Your task to perform on an android device: see sites visited before in the chrome app Image 0: 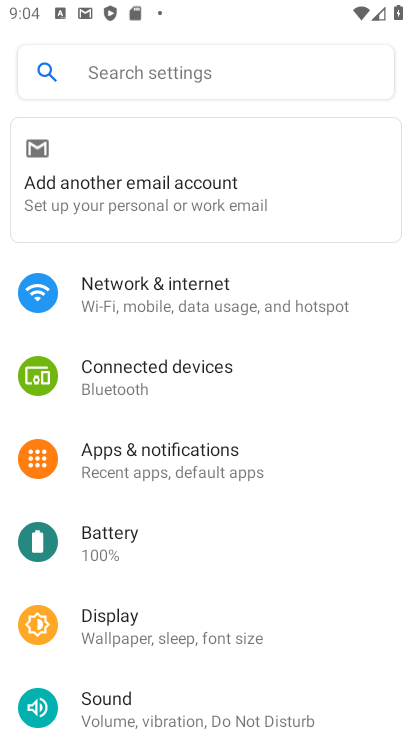
Step 0: press home button
Your task to perform on an android device: see sites visited before in the chrome app Image 1: 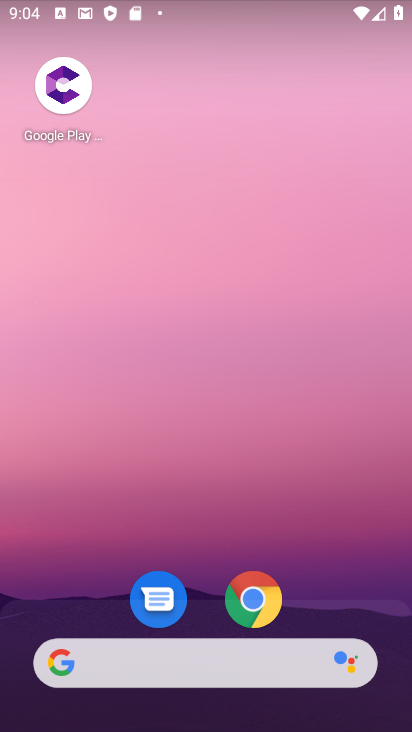
Step 1: click (260, 611)
Your task to perform on an android device: see sites visited before in the chrome app Image 2: 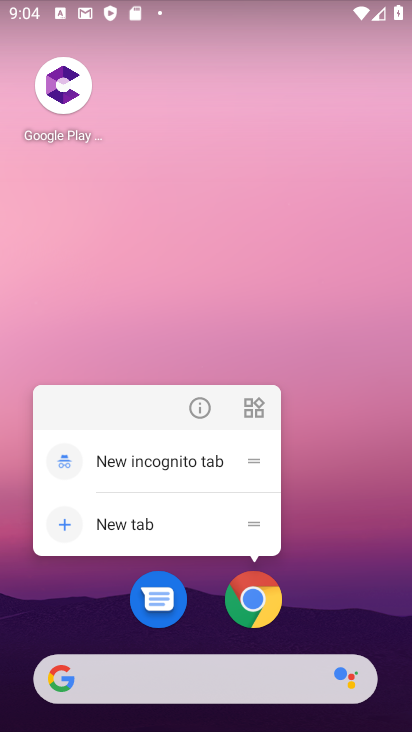
Step 2: click (255, 629)
Your task to perform on an android device: see sites visited before in the chrome app Image 3: 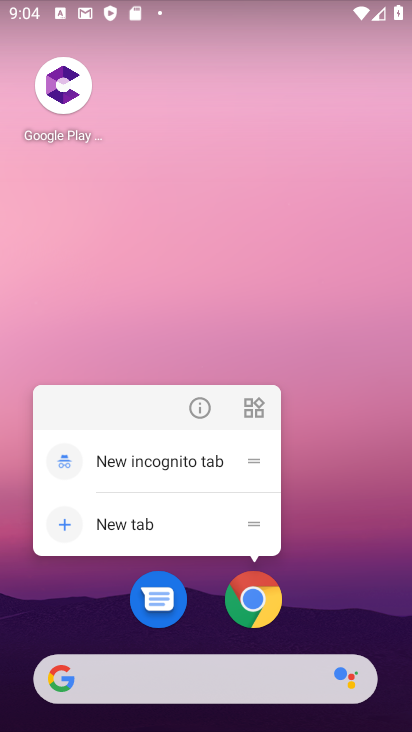
Step 3: click (255, 629)
Your task to perform on an android device: see sites visited before in the chrome app Image 4: 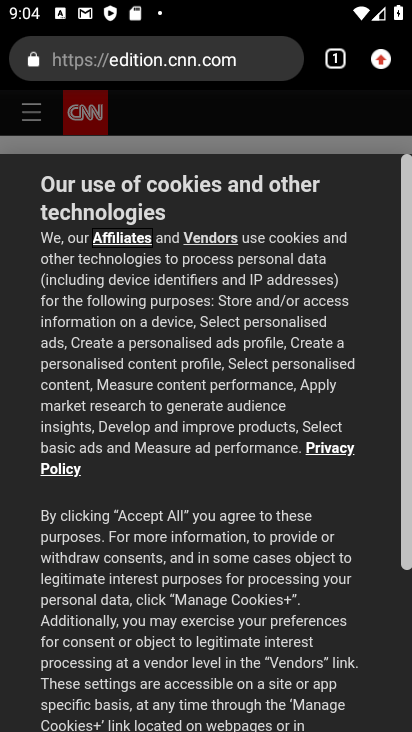
Step 4: click (378, 65)
Your task to perform on an android device: see sites visited before in the chrome app Image 5: 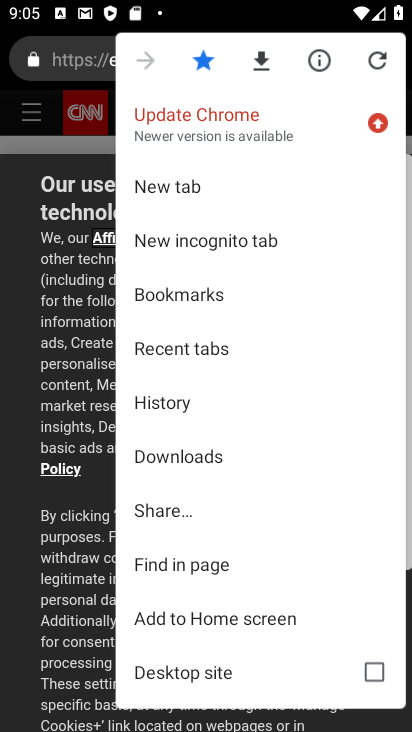
Step 5: click (197, 406)
Your task to perform on an android device: see sites visited before in the chrome app Image 6: 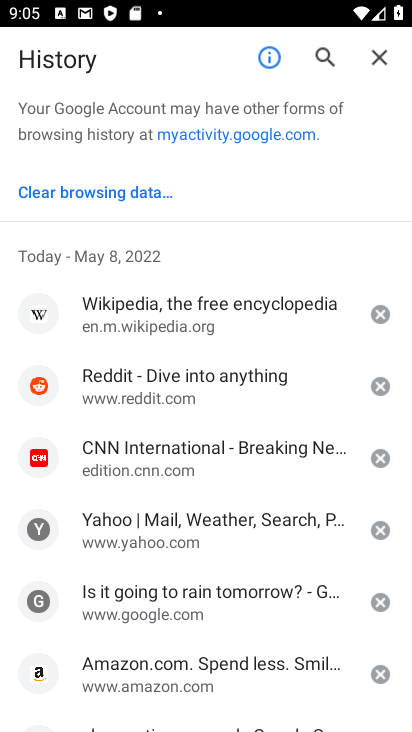
Step 6: task complete